Your task to perform on an android device: Is it going to rain tomorrow? Image 0: 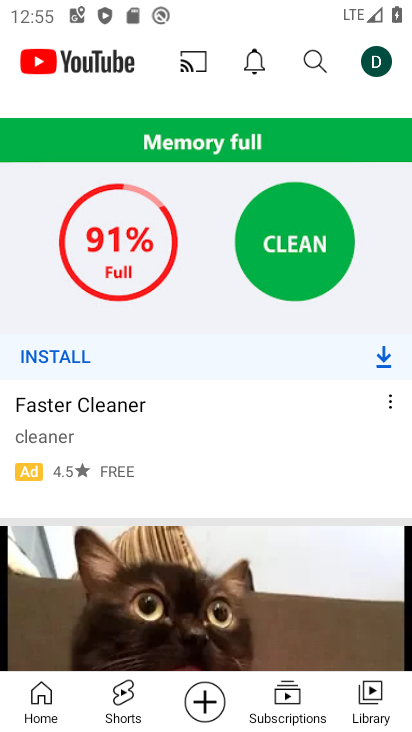
Step 0: press home button
Your task to perform on an android device: Is it going to rain tomorrow? Image 1: 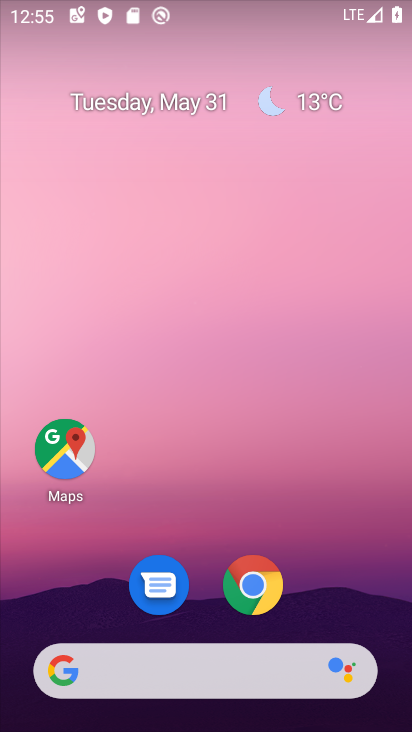
Step 1: click (154, 676)
Your task to perform on an android device: Is it going to rain tomorrow? Image 2: 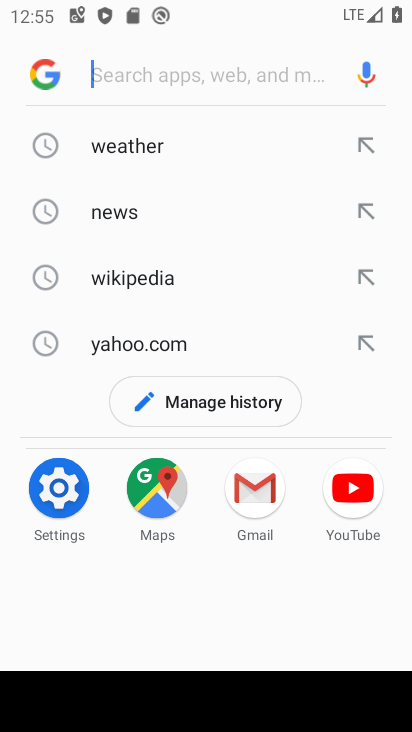
Step 2: click (119, 154)
Your task to perform on an android device: Is it going to rain tomorrow? Image 3: 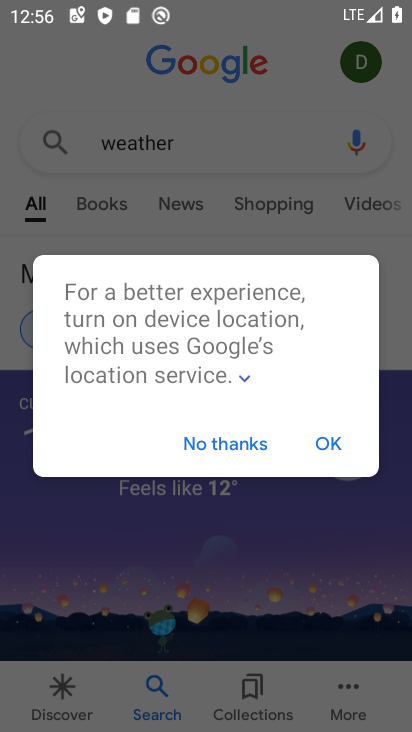
Step 3: click (325, 434)
Your task to perform on an android device: Is it going to rain tomorrow? Image 4: 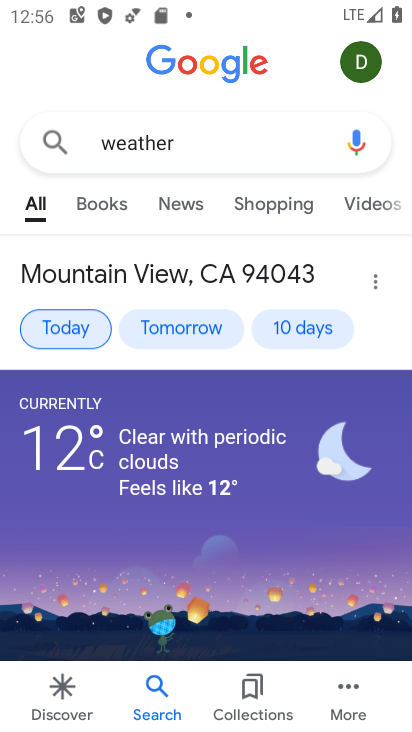
Step 4: click (77, 322)
Your task to perform on an android device: Is it going to rain tomorrow? Image 5: 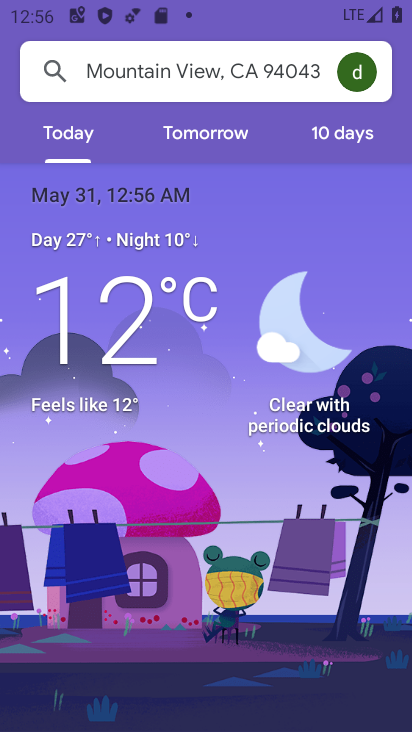
Step 5: click (211, 129)
Your task to perform on an android device: Is it going to rain tomorrow? Image 6: 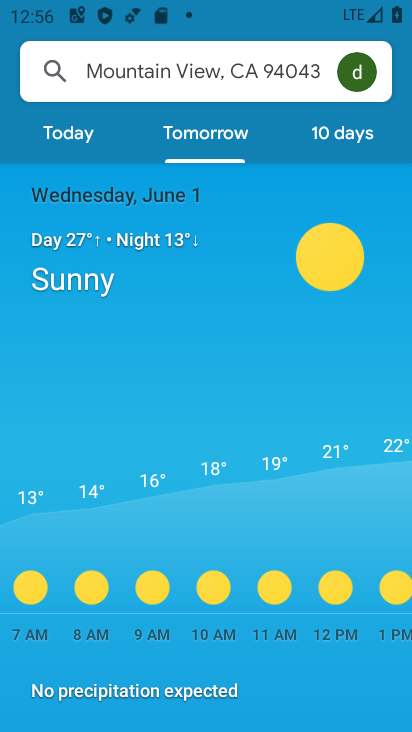
Step 6: task complete